Your task to perform on an android device: check the backup settings in the google photos Image 0: 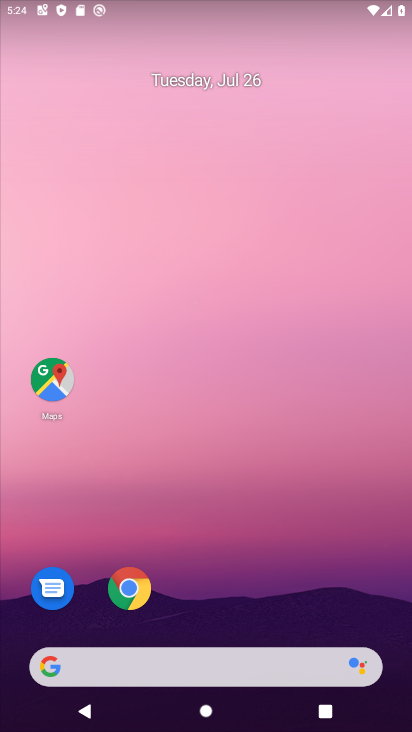
Step 0: drag from (254, 629) to (319, 39)
Your task to perform on an android device: check the backup settings in the google photos Image 1: 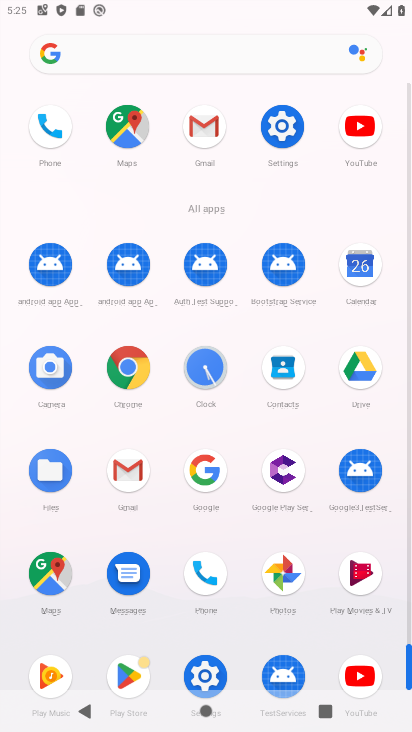
Step 1: click (284, 582)
Your task to perform on an android device: check the backup settings in the google photos Image 2: 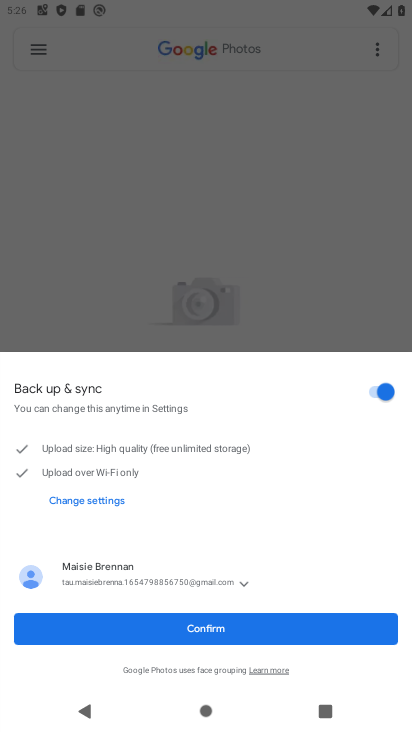
Step 2: click (225, 621)
Your task to perform on an android device: check the backup settings in the google photos Image 3: 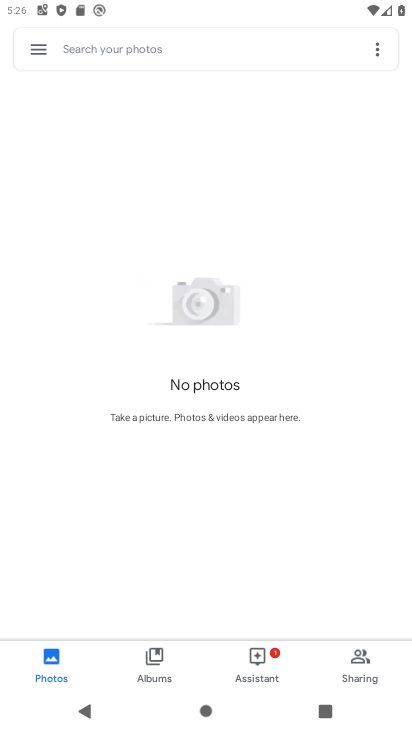
Step 3: click (41, 48)
Your task to perform on an android device: check the backup settings in the google photos Image 4: 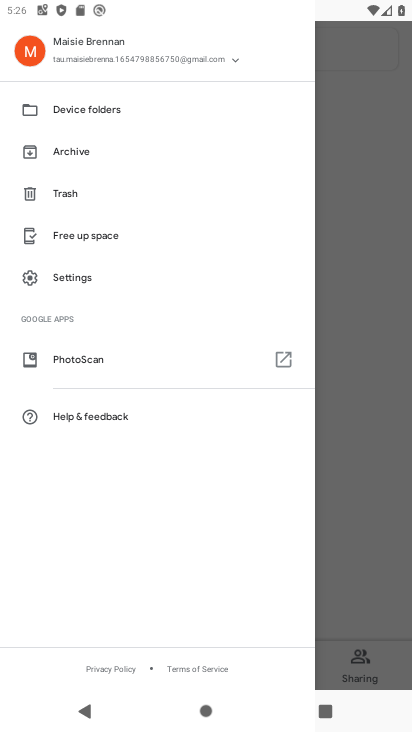
Step 4: click (91, 284)
Your task to perform on an android device: check the backup settings in the google photos Image 5: 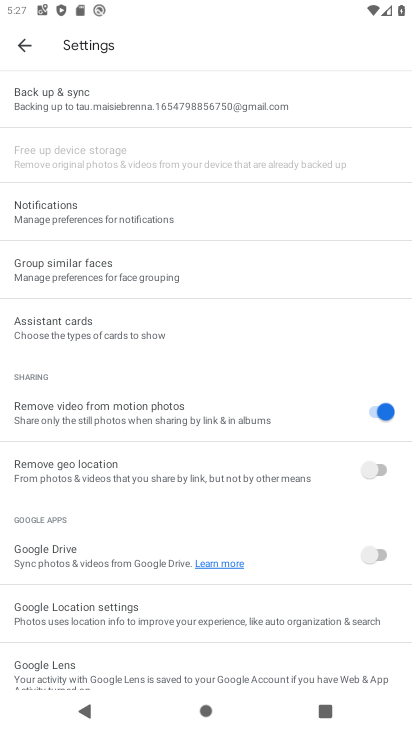
Step 5: click (102, 91)
Your task to perform on an android device: check the backup settings in the google photos Image 6: 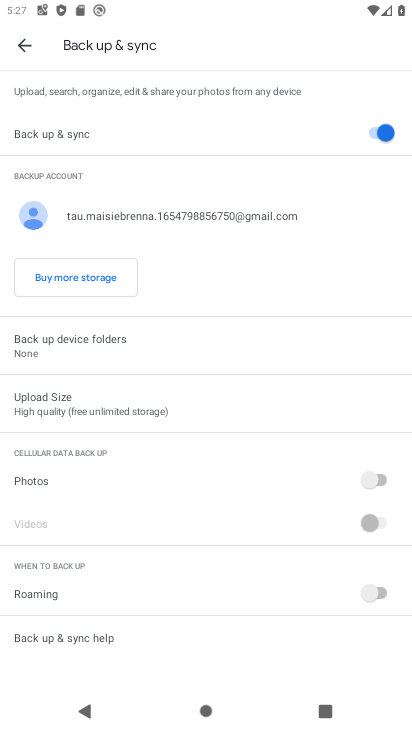
Step 6: task complete